Your task to perform on an android device: Open network settings Image 0: 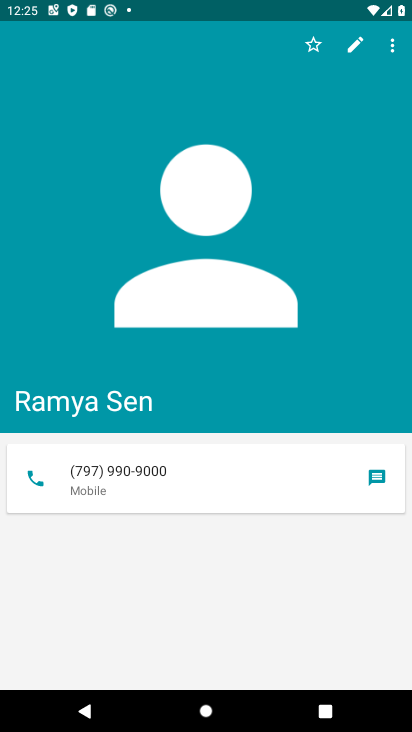
Step 0: press home button
Your task to perform on an android device: Open network settings Image 1: 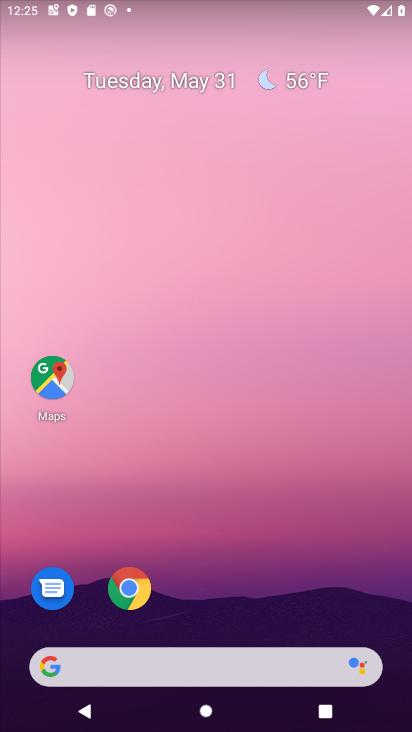
Step 1: click (133, 598)
Your task to perform on an android device: Open network settings Image 2: 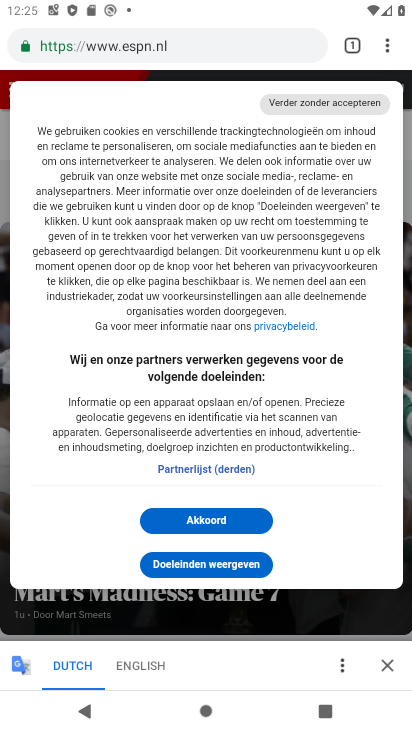
Step 2: press home button
Your task to perform on an android device: Open network settings Image 3: 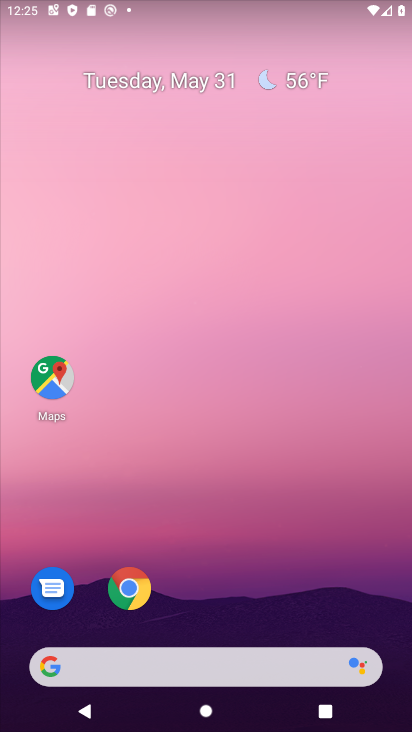
Step 3: drag from (211, 612) to (192, 53)
Your task to perform on an android device: Open network settings Image 4: 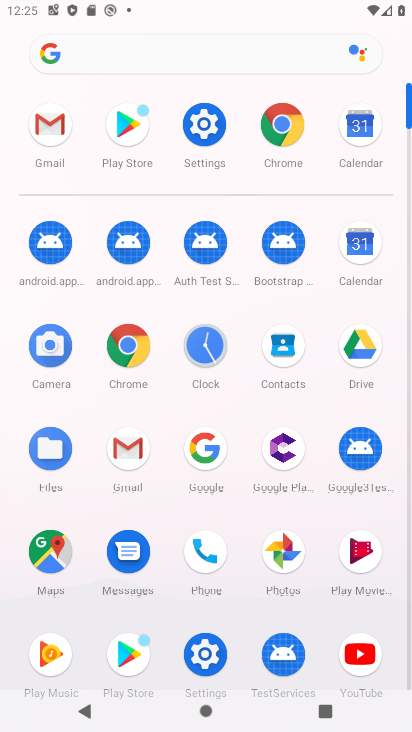
Step 4: click (204, 141)
Your task to perform on an android device: Open network settings Image 5: 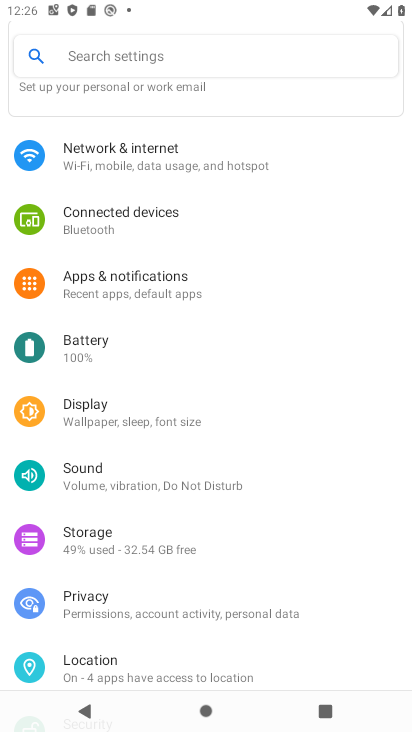
Step 5: click (206, 173)
Your task to perform on an android device: Open network settings Image 6: 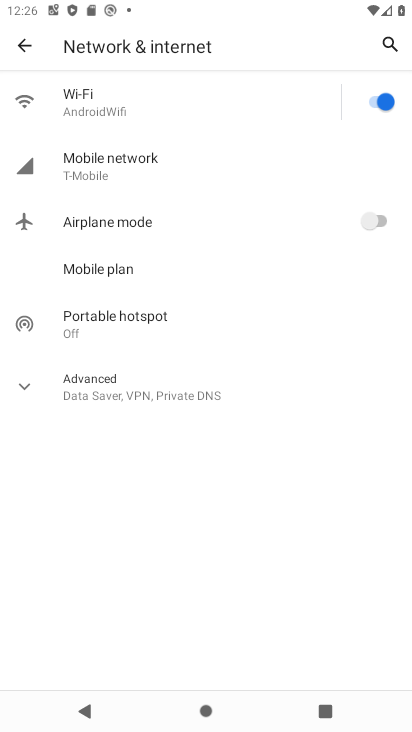
Step 6: task complete